Your task to perform on an android device: Do I have any events this weekend? Image 0: 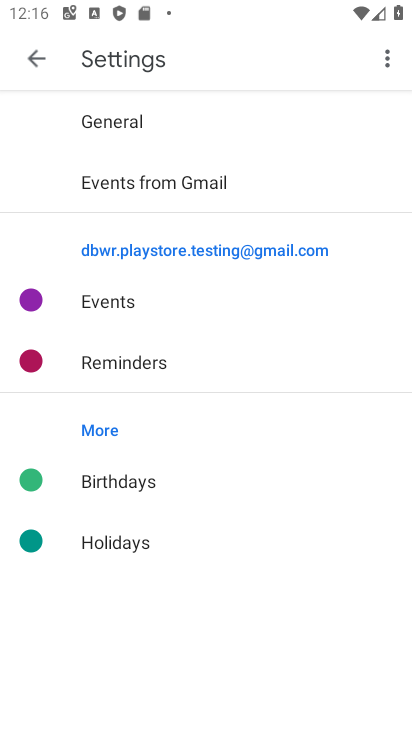
Step 0: press home button
Your task to perform on an android device: Do I have any events this weekend? Image 1: 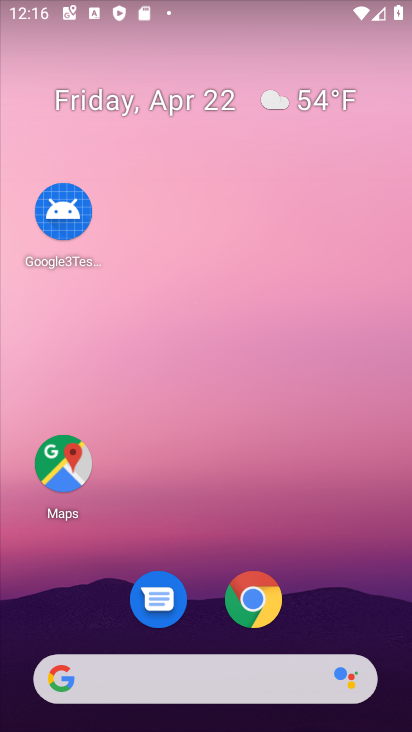
Step 1: drag from (202, 482) to (161, 22)
Your task to perform on an android device: Do I have any events this weekend? Image 2: 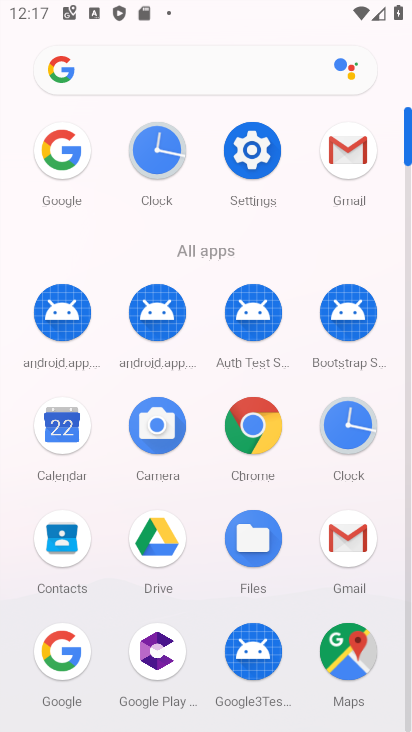
Step 2: click (61, 430)
Your task to perform on an android device: Do I have any events this weekend? Image 3: 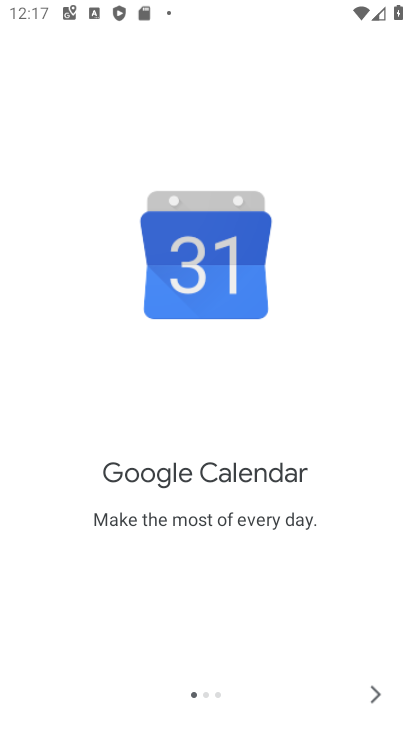
Step 3: click (370, 696)
Your task to perform on an android device: Do I have any events this weekend? Image 4: 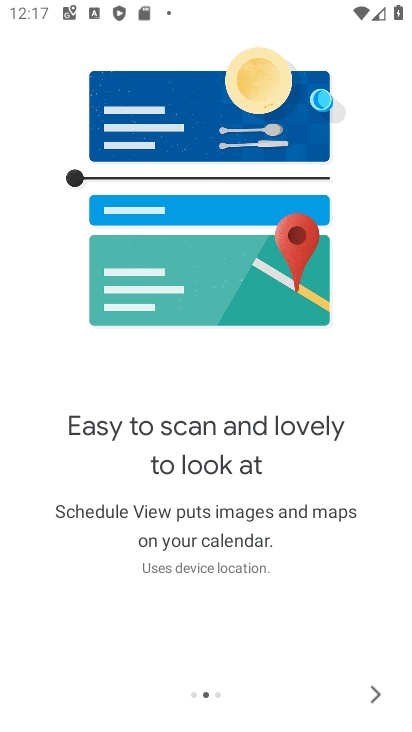
Step 4: click (370, 696)
Your task to perform on an android device: Do I have any events this weekend? Image 5: 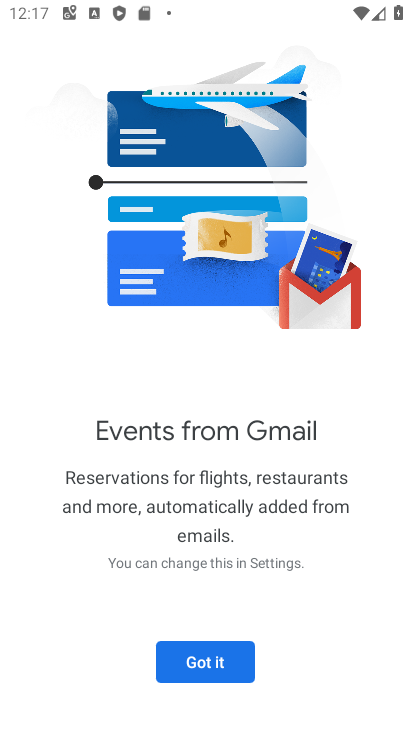
Step 5: click (203, 656)
Your task to perform on an android device: Do I have any events this weekend? Image 6: 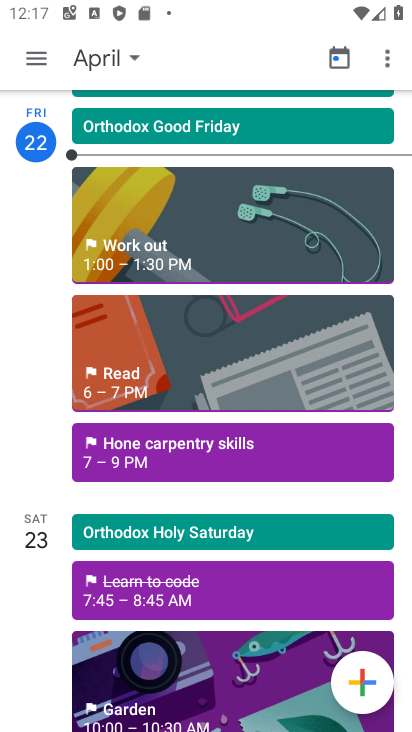
Step 6: click (111, 55)
Your task to perform on an android device: Do I have any events this weekend? Image 7: 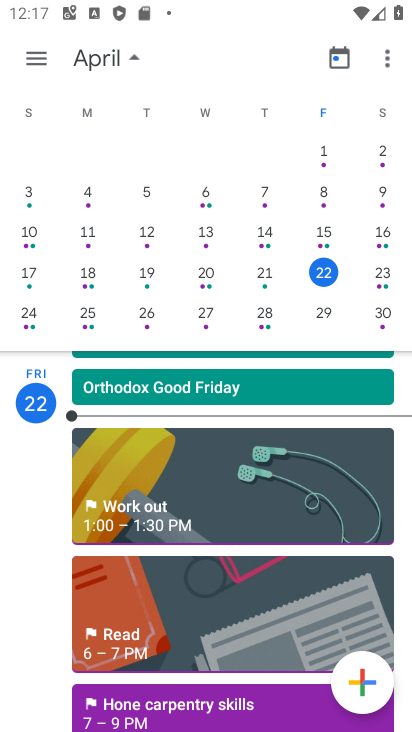
Step 7: click (383, 272)
Your task to perform on an android device: Do I have any events this weekend? Image 8: 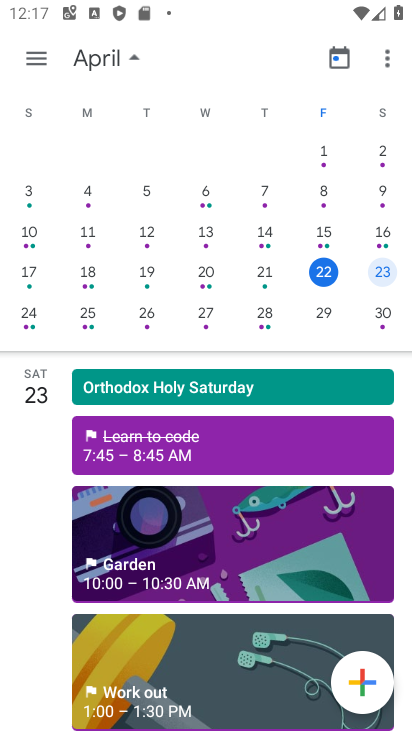
Step 8: click (32, 310)
Your task to perform on an android device: Do I have any events this weekend? Image 9: 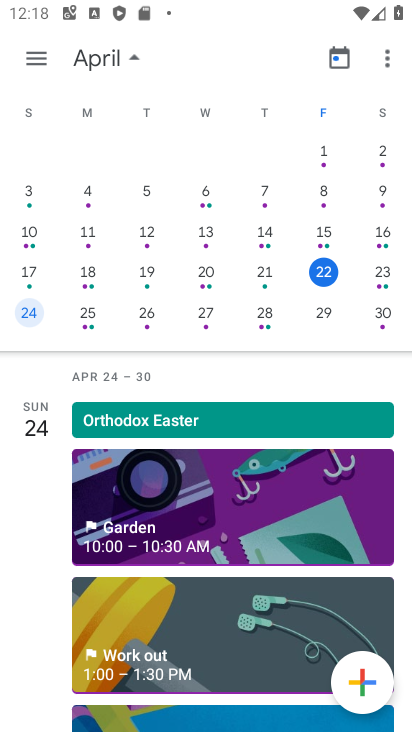
Step 9: task complete